Your task to perform on an android device: check battery use Image 0: 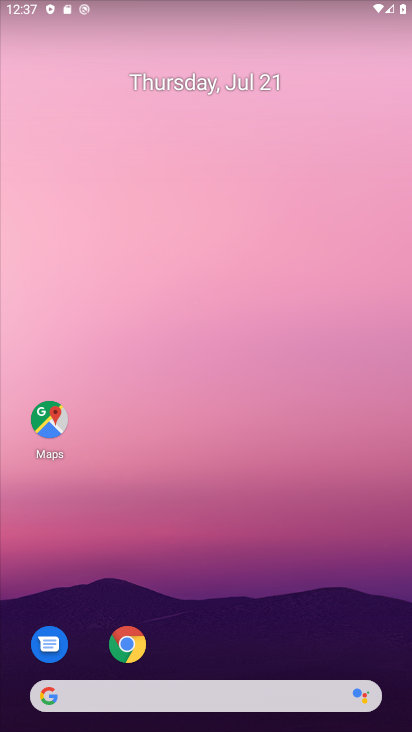
Step 0: drag from (224, 641) to (304, 75)
Your task to perform on an android device: check battery use Image 1: 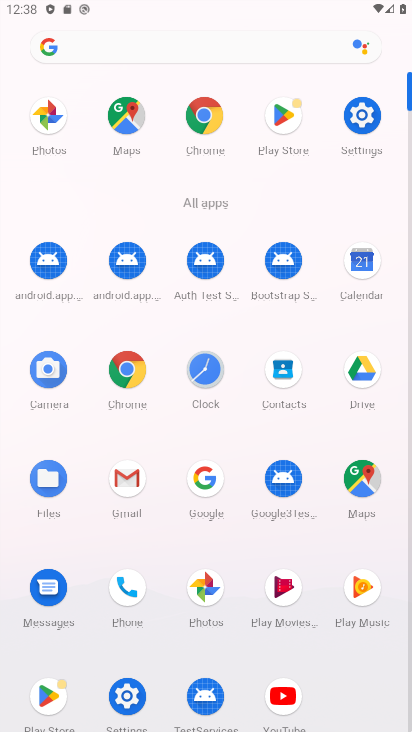
Step 1: click (131, 689)
Your task to perform on an android device: check battery use Image 2: 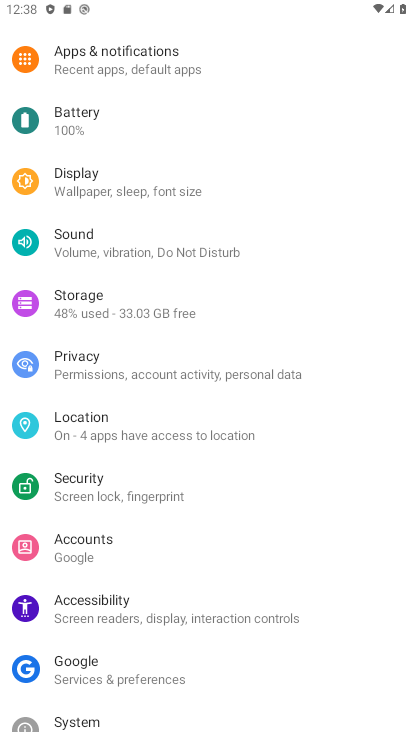
Step 2: click (63, 105)
Your task to perform on an android device: check battery use Image 3: 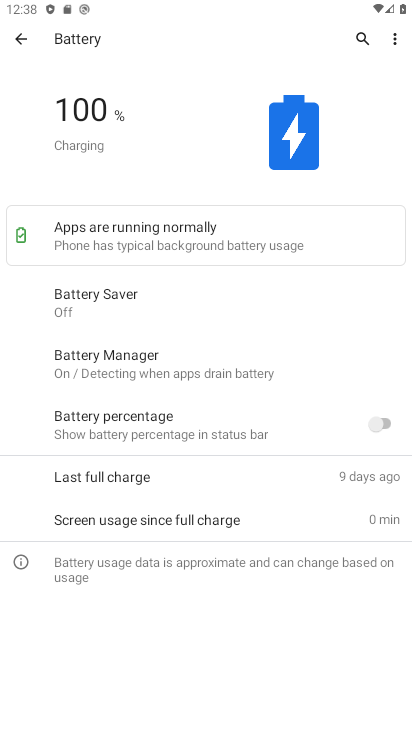
Step 3: task complete